Your task to perform on an android device: turn on priority inbox in the gmail app Image 0: 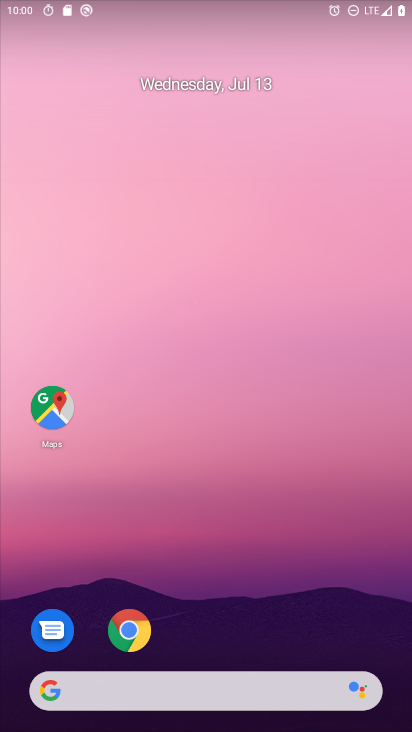
Step 0: drag from (373, 628) to (287, 78)
Your task to perform on an android device: turn on priority inbox in the gmail app Image 1: 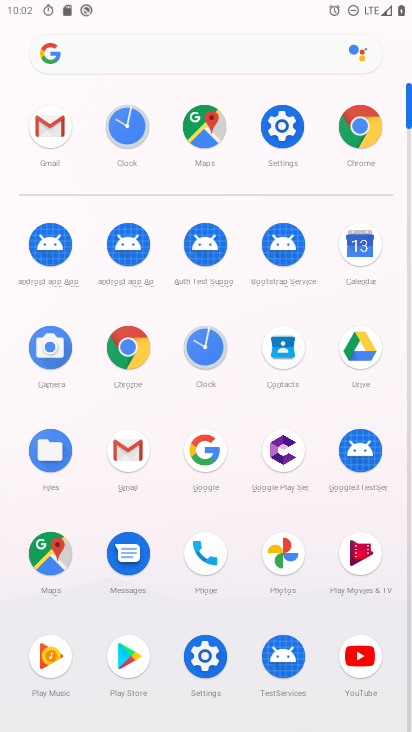
Step 1: click (131, 454)
Your task to perform on an android device: turn on priority inbox in the gmail app Image 2: 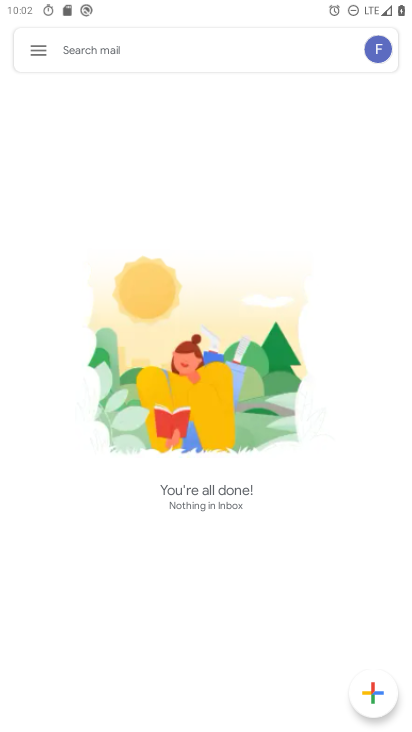
Step 2: click (35, 49)
Your task to perform on an android device: turn on priority inbox in the gmail app Image 3: 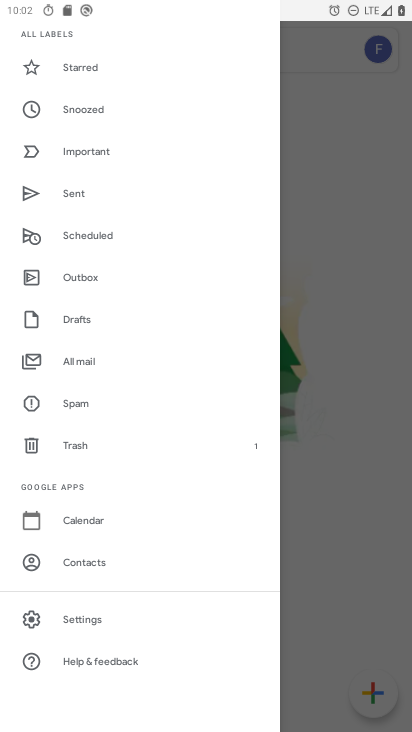
Step 3: click (87, 624)
Your task to perform on an android device: turn on priority inbox in the gmail app Image 4: 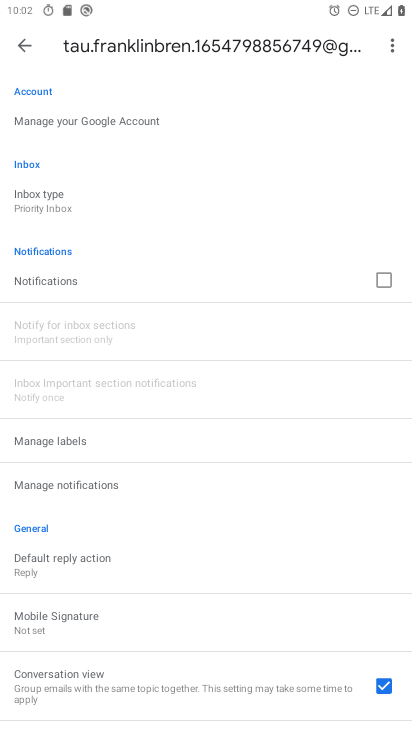
Step 4: click (95, 212)
Your task to perform on an android device: turn on priority inbox in the gmail app Image 5: 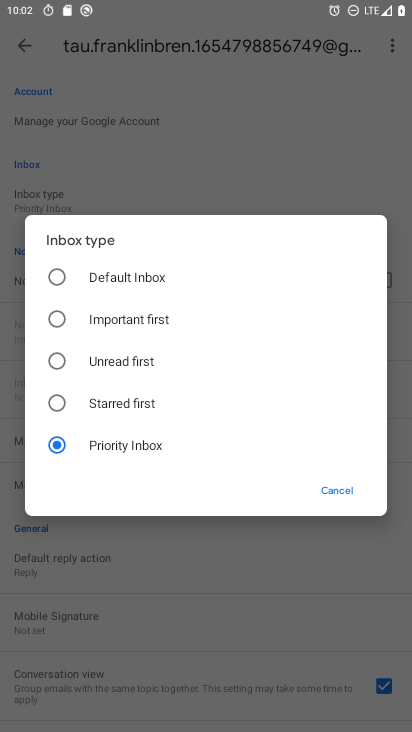
Step 5: task complete